Your task to perform on an android device: check google app version Image 0: 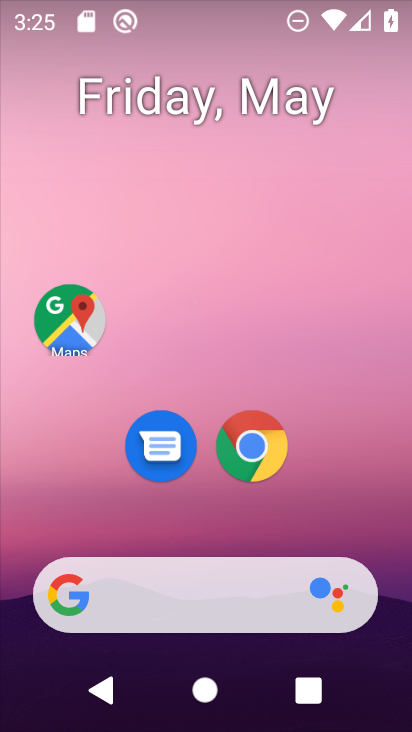
Step 0: drag from (341, 467) to (361, 122)
Your task to perform on an android device: check google app version Image 1: 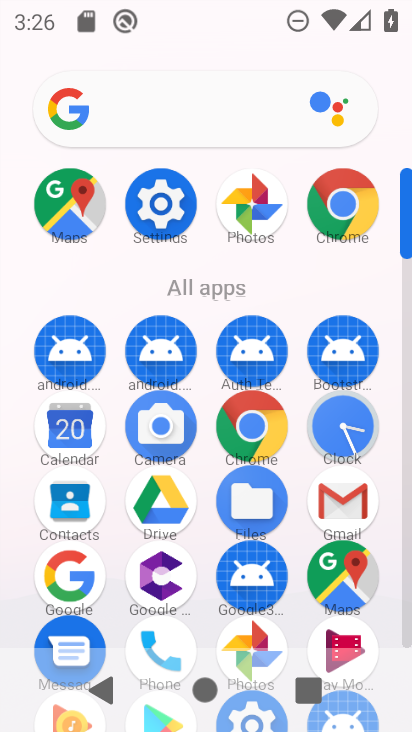
Step 1: click (71, 586)
Your task to perform on an android device: check google app version Image 2: 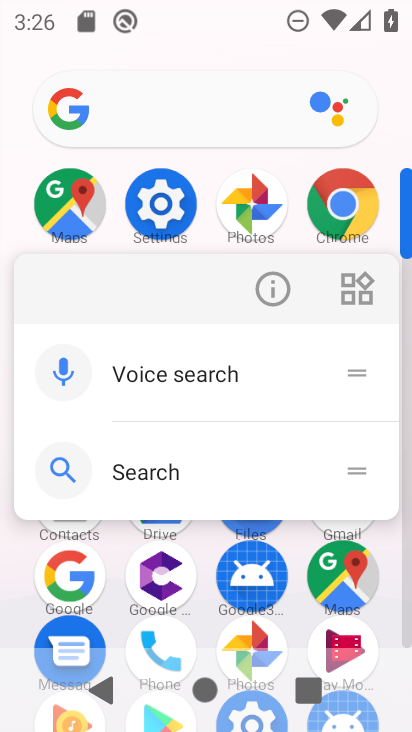
Step 2: click (278, 288)
Your task to perform on an android device: check google app version Image 3: 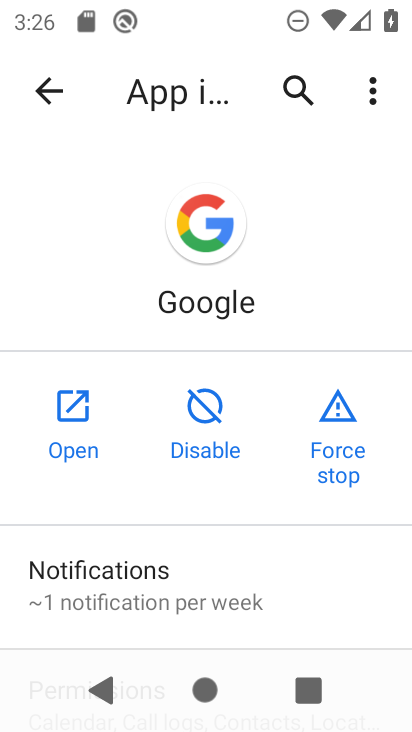
Step 3: drag from (313, 623) to (352, 195)
Your task to perform on an android device: check google app version Image 4: 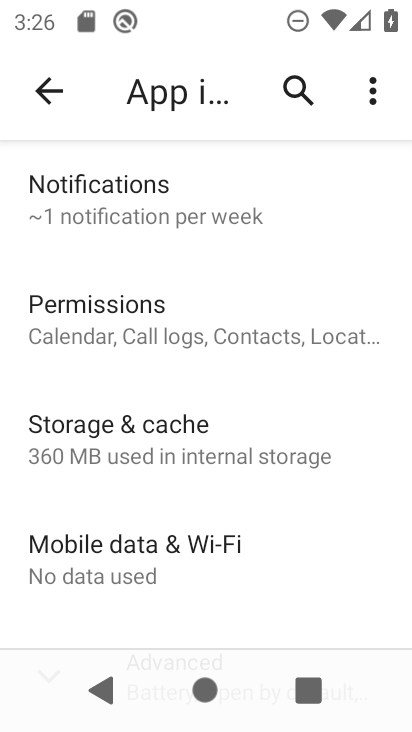
Step 4: drag from (316, 550) to (348, 209)
Your task to perform on an android device: check google app version Image 5: 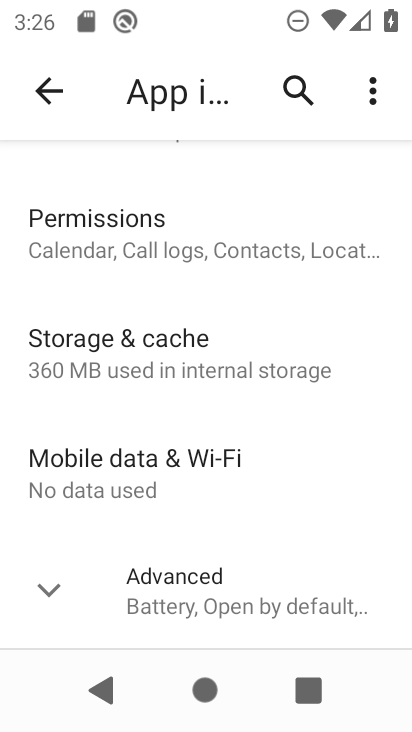
Step 5: click (250, 599)
Your task to perform on an android device: check google app version Image 6: 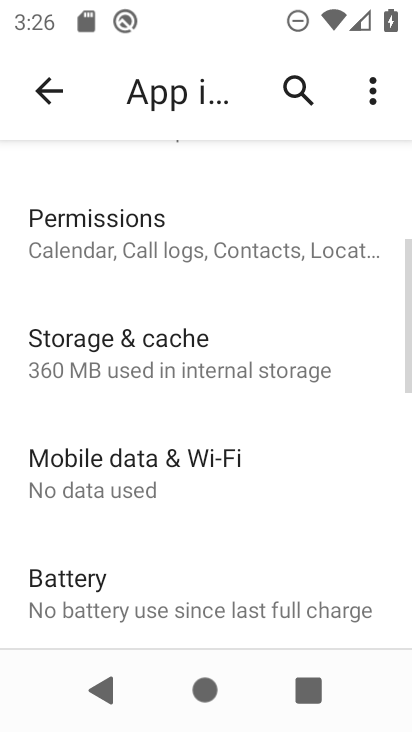
Step 6: task complete